Your task to perform on an android device: What's the weather? Image 0: 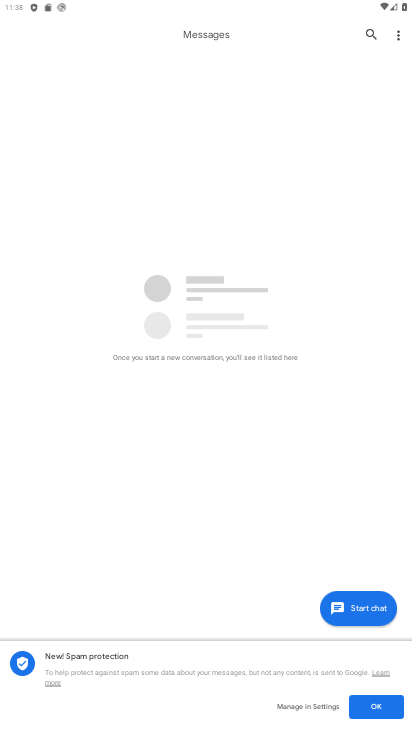
Step 0: press home button
Your task to perform on an android device: What's the weather? Image 1: 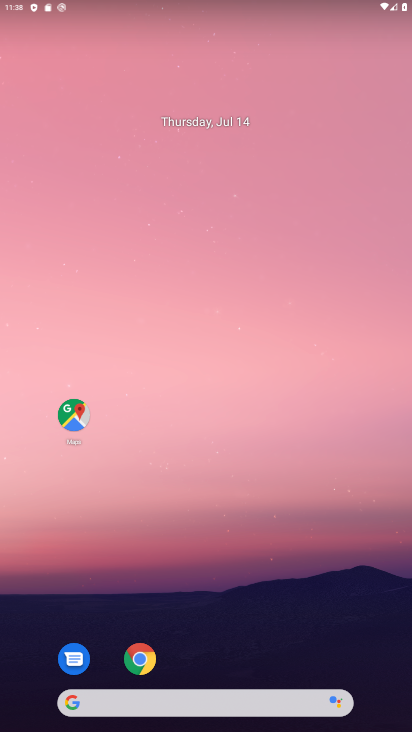
Step 1: click (158, 703)
Your task to perform on an android device: What's the weather? Image 2: 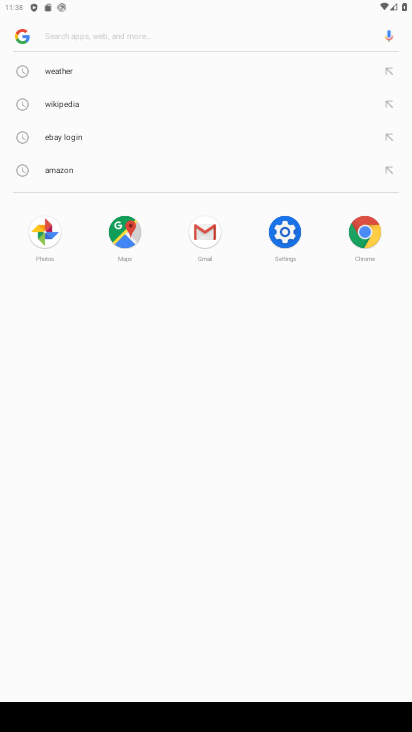
Step 2: type "what's the weather?"
Your task to perform on an android device: What's the weather? Image 3: 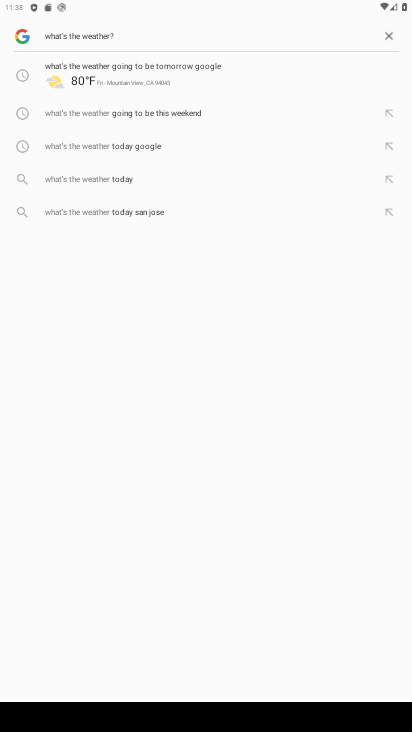
Step 3: click (102, 176)
Your task to perform on an android device: What's the weather? Image 4: 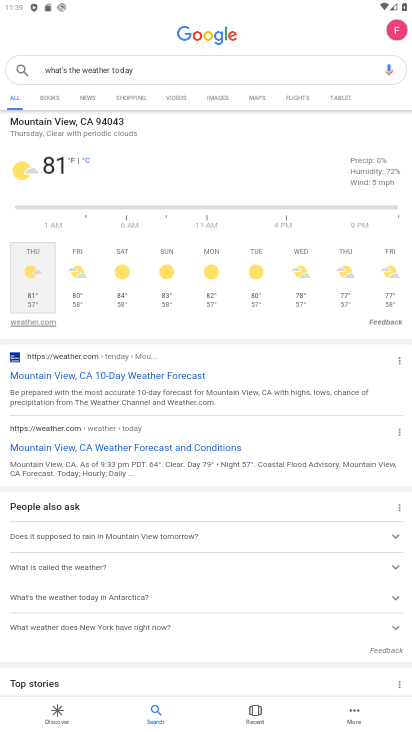
Step 4: task complete